Your task to perform on an android device: delete browsing data in the chrome app Image 0: 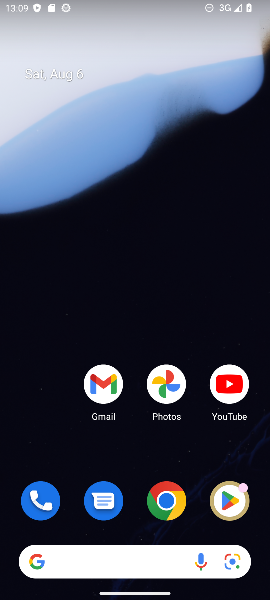
Step 0: click (173, 500)
Your task to perform on an android device: delete browsing data in the chrome app Image 1: 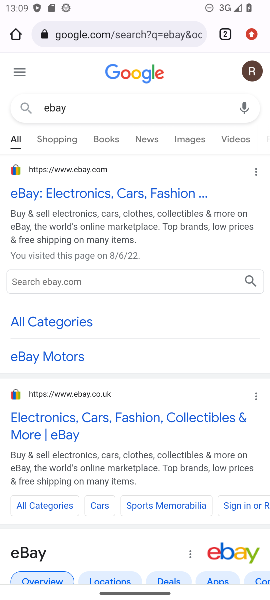
Step 1: click (247, 37)
Your task to perform on an android device: delete browsing data in the chrome app Image 2: 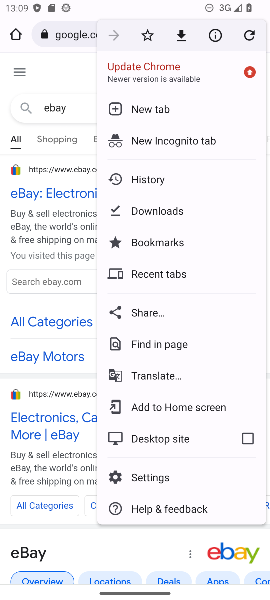
Step 2: click (135, 185)
Your task to perform on an android device: delete browsing data in the chrome app Image 3: 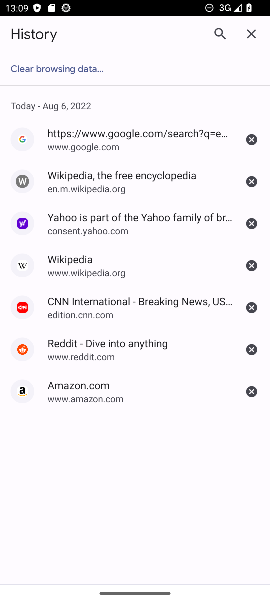
Step 3: click (49, 67)
Your task to perform on an android device: delete browsing data in the chrome app Image 4: 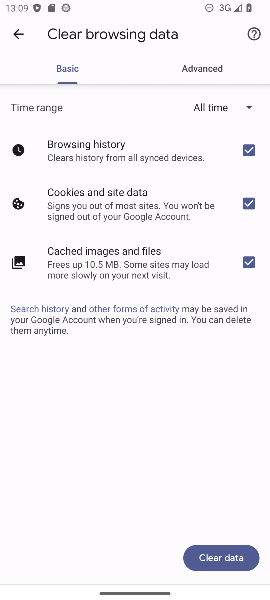
Step 4: click (216, 560)
Your task to perform on an android device: delete browsing data in the chrome app Image 5: 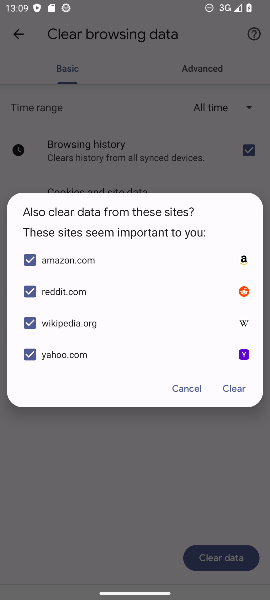
Step 5: click (229, 383)
Your task to perform on an android device: delete browsing data in the chrome app Image 6: 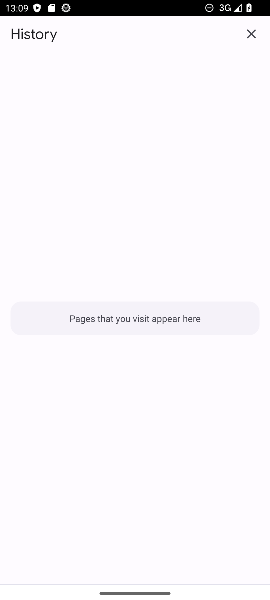
Step 6: task complete